Your task to perform on an android device: Go to privacy settings Image 0: 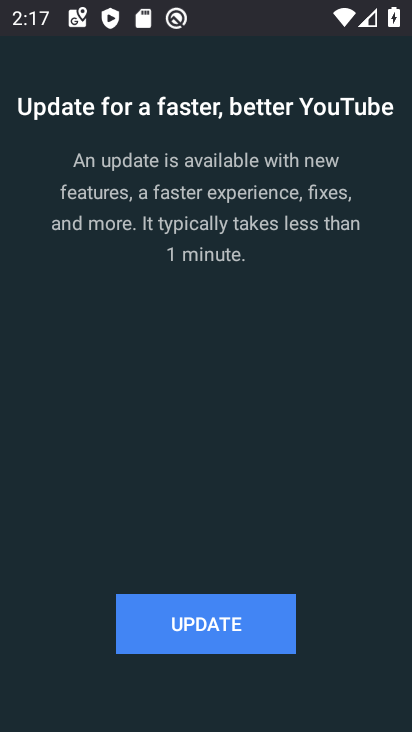
Step 0: press home button
Your task to perform on an android device: Go to privacy settings Image 1: 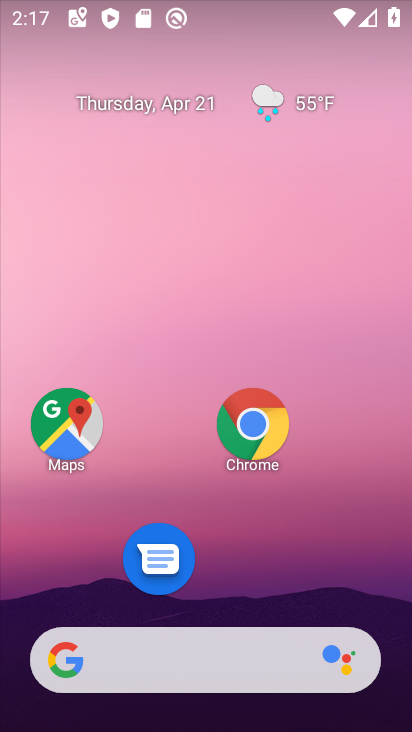
Step 1: click (256, 423)
Your task to perform on an android device: Go to privacy settings Image 2: 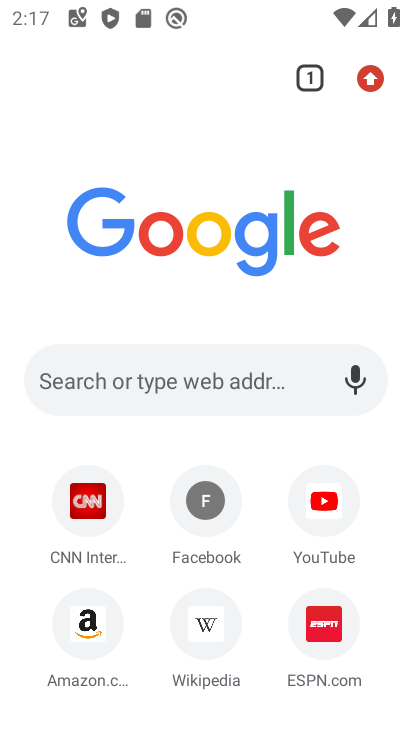
Step 2: click (375, 77)
Your task to perform on an android device: Go to privacy settings Image 3: 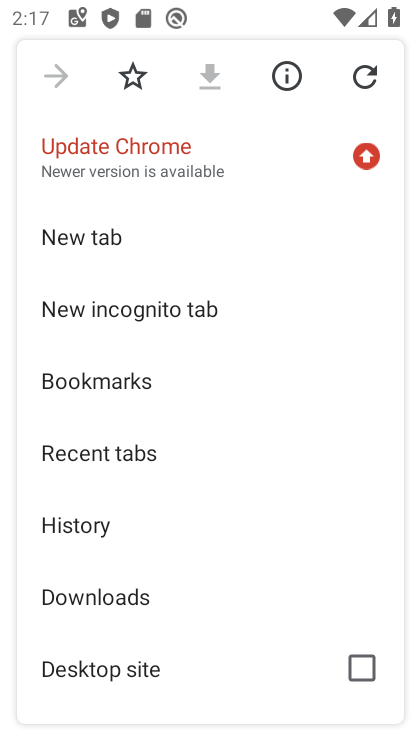
Step 3: drag from (216, 547) to (196, 38)
Your task to perform on an android device: Go to privacy settings Image 4: 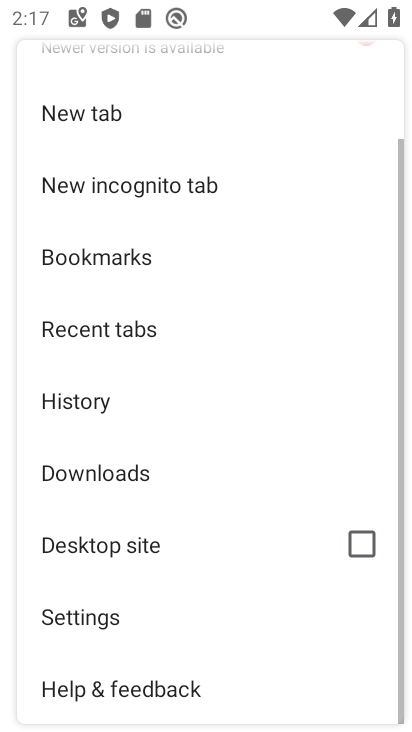
Step 4: click (116, 606)
Your task to perform on an android device: Go to privacy settings Image 5: 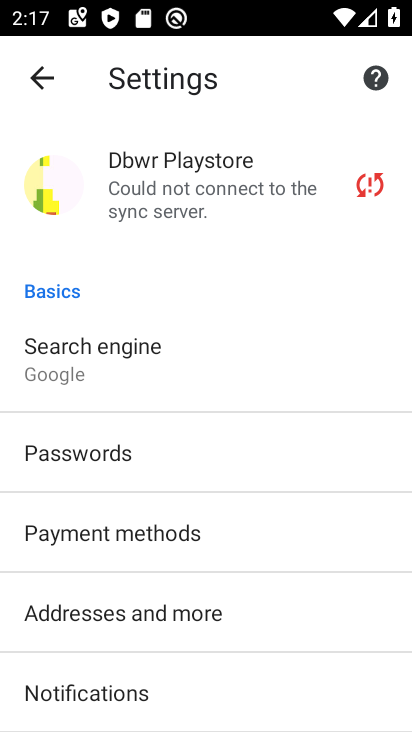
Step 5: drag from (200, 638) to (199, 206)
Your task to perform on an android device: Go to privacy settings Image 6: 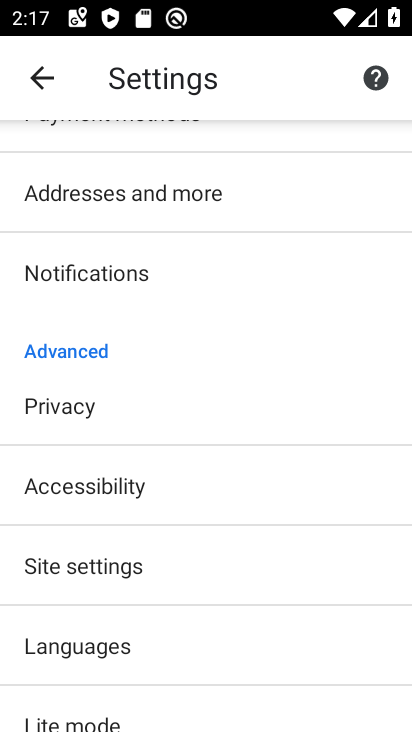
Step 6: click (49, 416)
Your task to perform on an android device: Go to privacy settings Image 7: 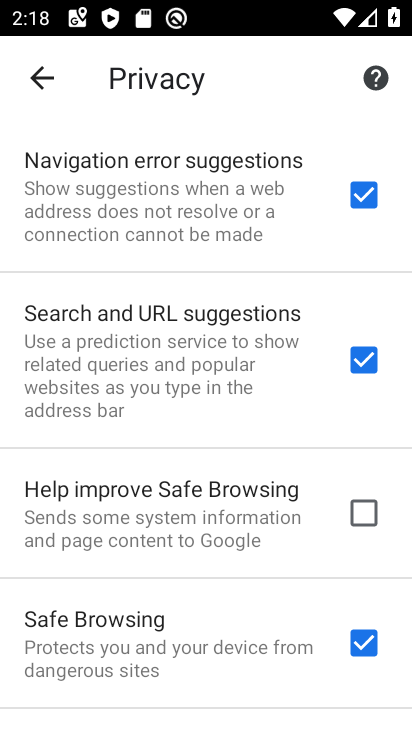
Step 7: task complete